Your task to perform on an android device: open app "Google Pay: Save, Pay, Manage" Image 0: 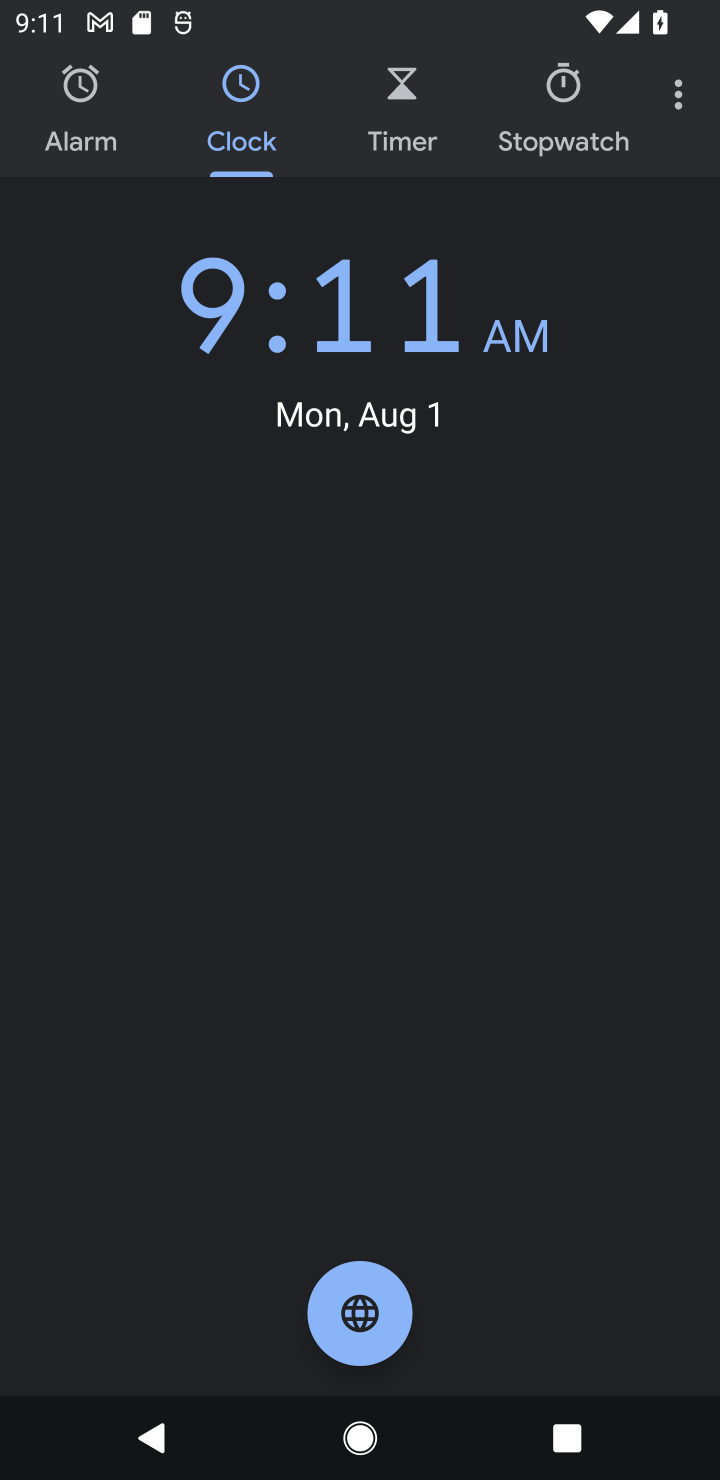
Step 0: press home button
Your task to perform on an android device: open app "Google Pay: Save, Pay, Manage" Image 1: 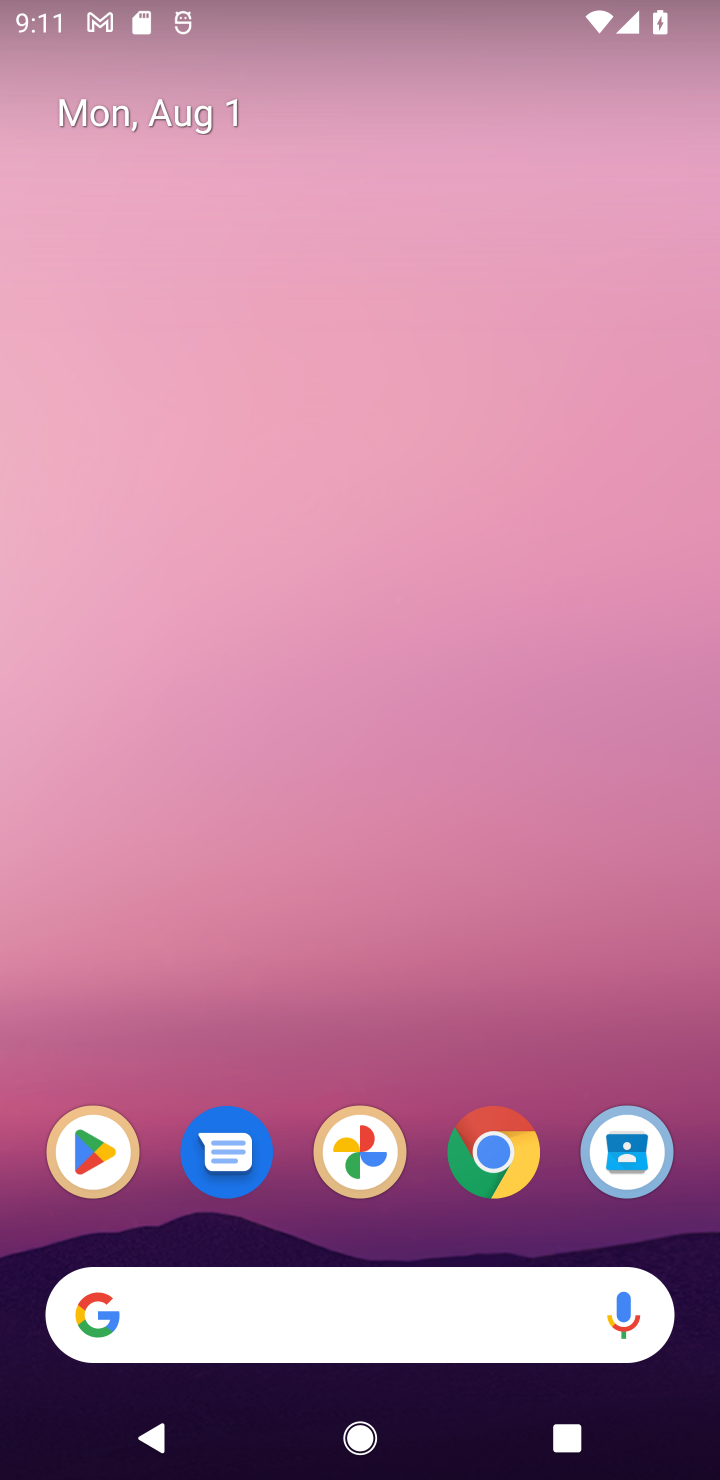
Step 1: drag from (289, 1200) to (652, 1394)
Your task to perform on an android device: open app "Google Pay: Save, Pay, Manage" Image 2: 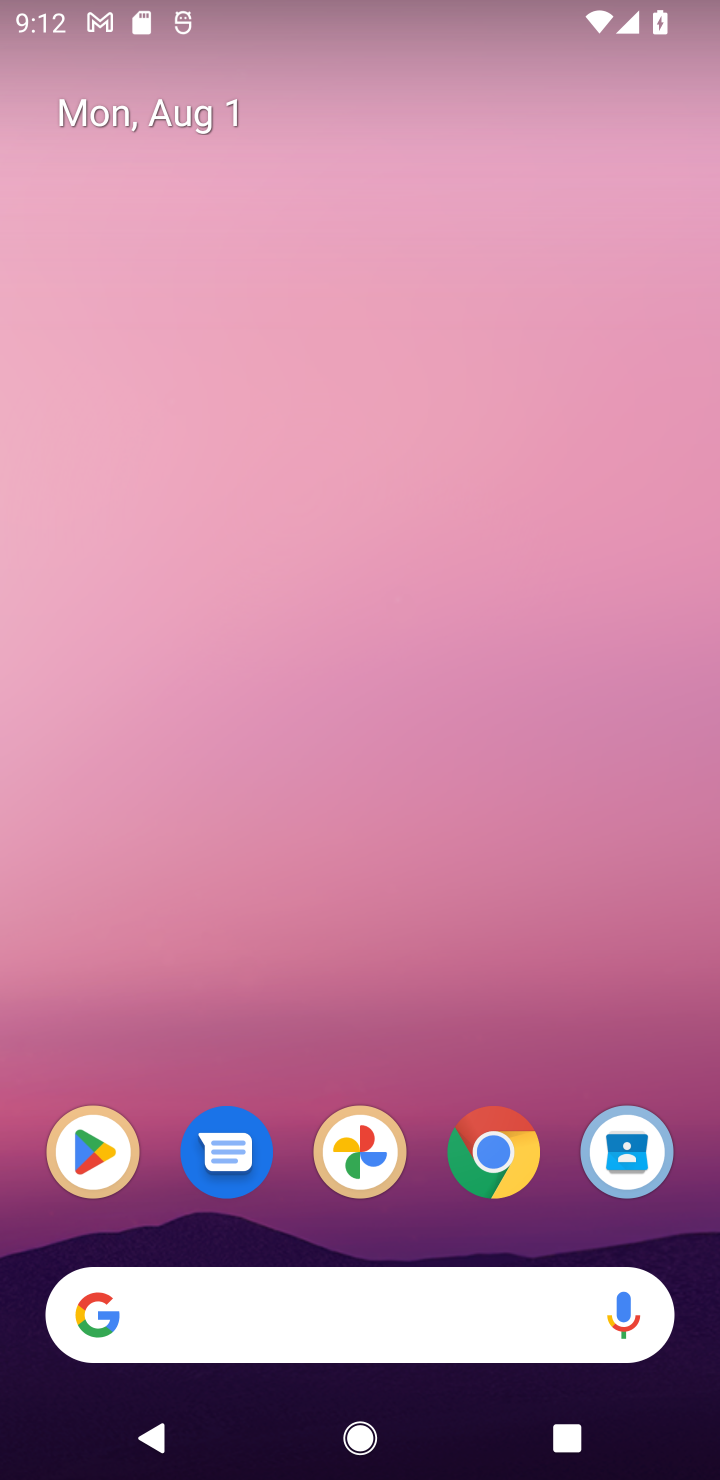
Step 2: drag from (357, 1272) to (284, 33)
Your task to perform on an android device: open app "Google Pay: Save, Pay, Manage" Image 3: 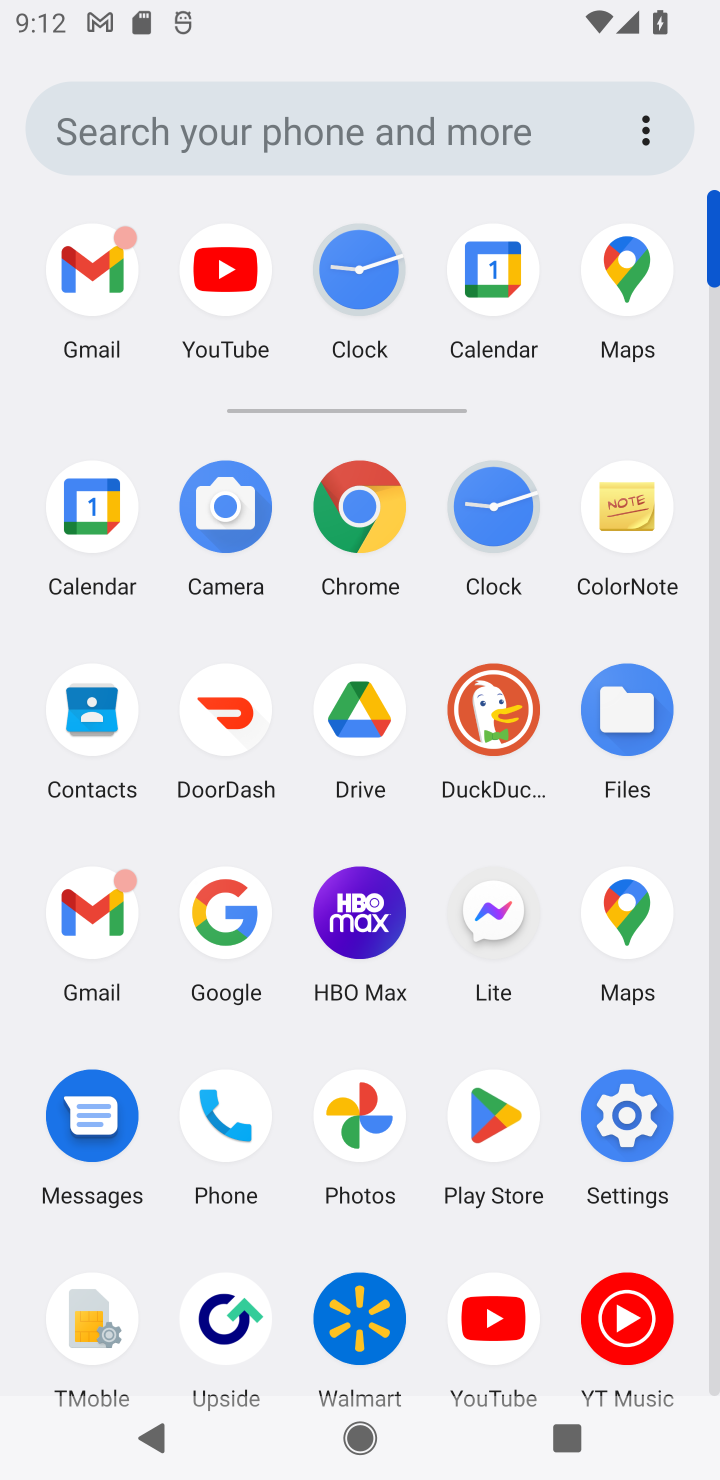
Step 3: click (481, 1120)
Your task to perform on an android device: open app "Google Pay: Save, Pay, Manage" Image 4: 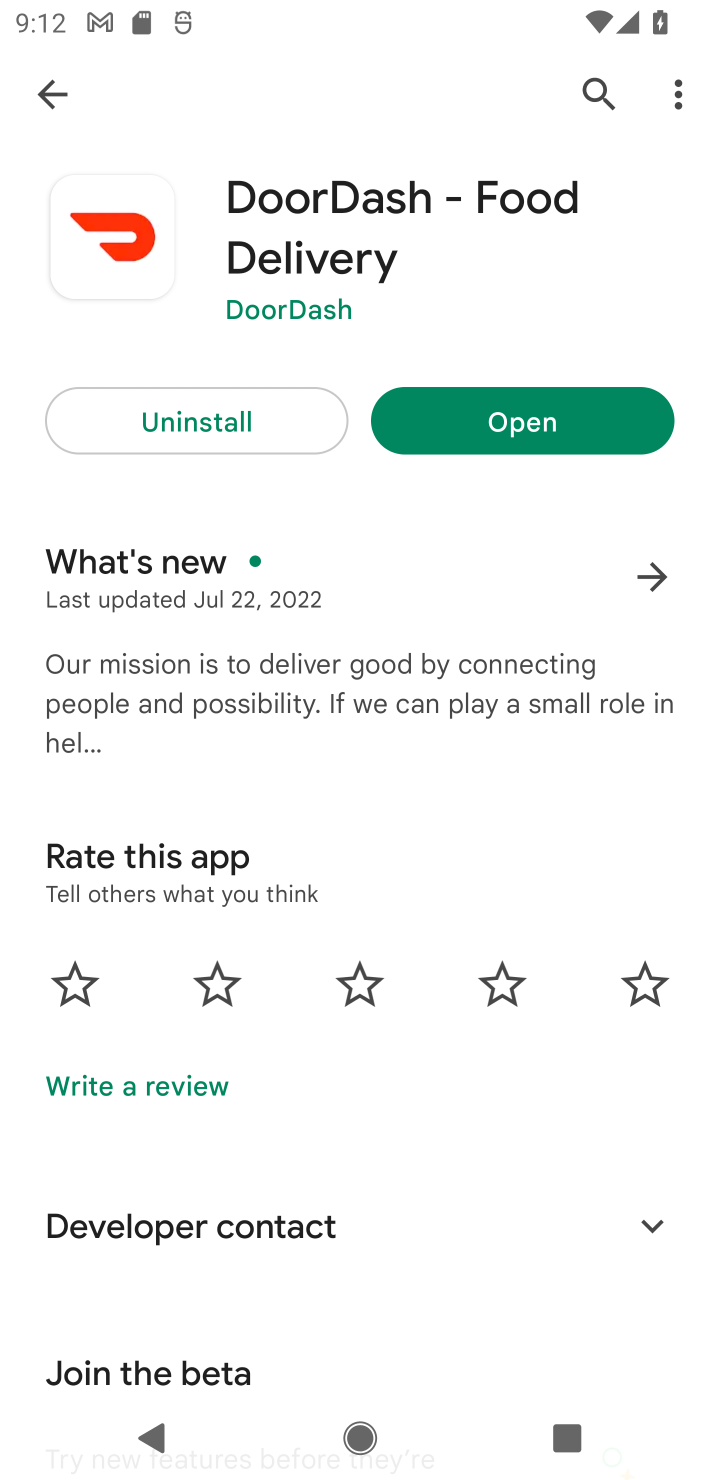
Step 4: click (49, 97)
Your task to perform on an android device: open app "Google Pay: Save, Pay, Manage" Image 5: 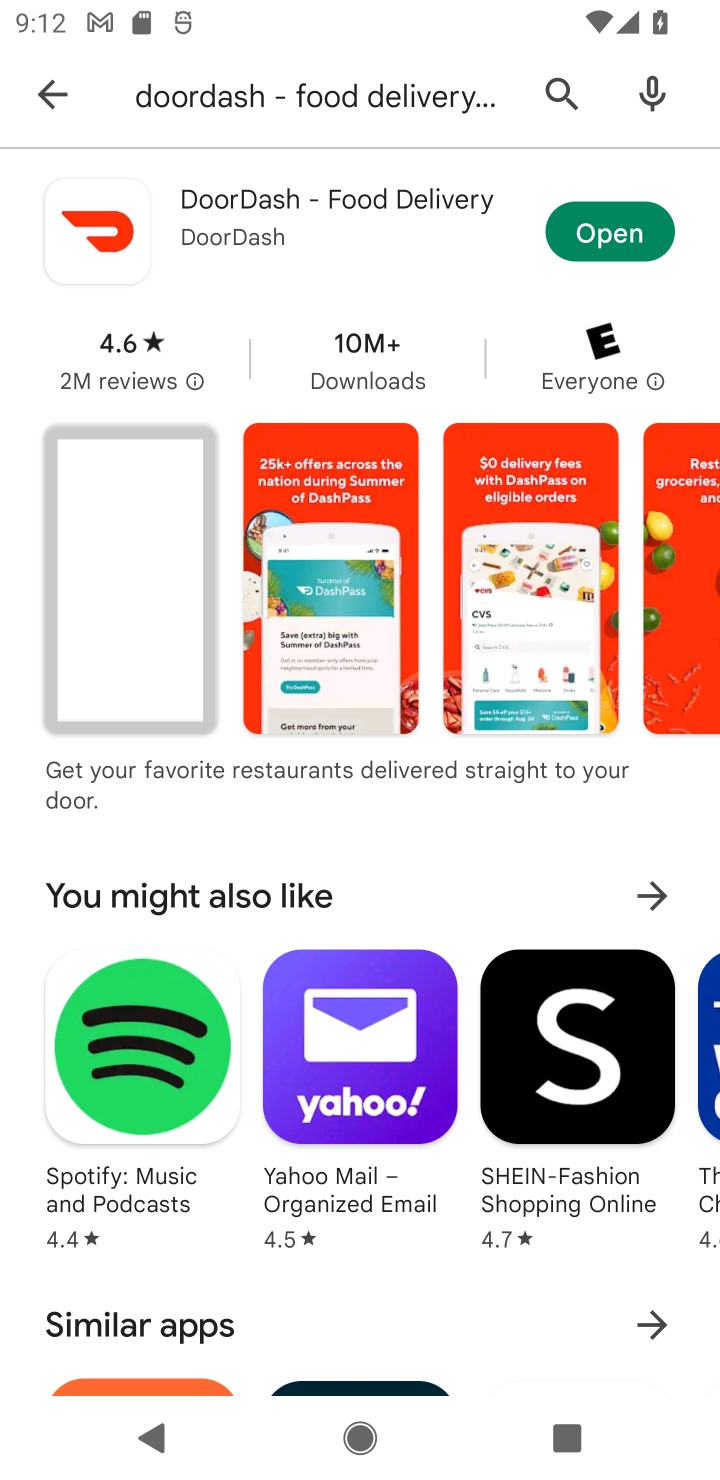
Step 5: click (555, 95)
Your task to perform on an android device: open app "Google Pay: Save, Pay, Manage" Image 6: 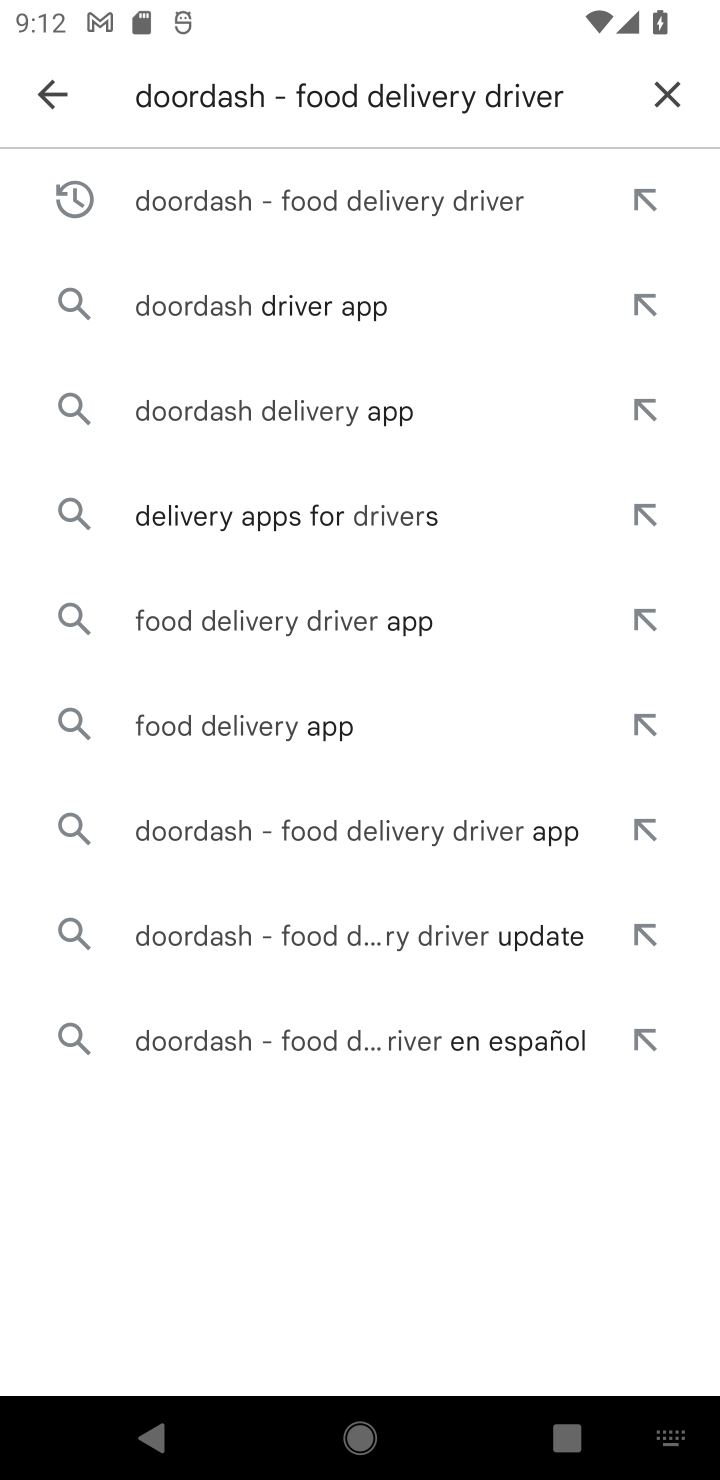
Step 6: click (661, 93)
Your task to perform on an android device: open app "Google Pay: Save, Pay, Manage" Image 7: 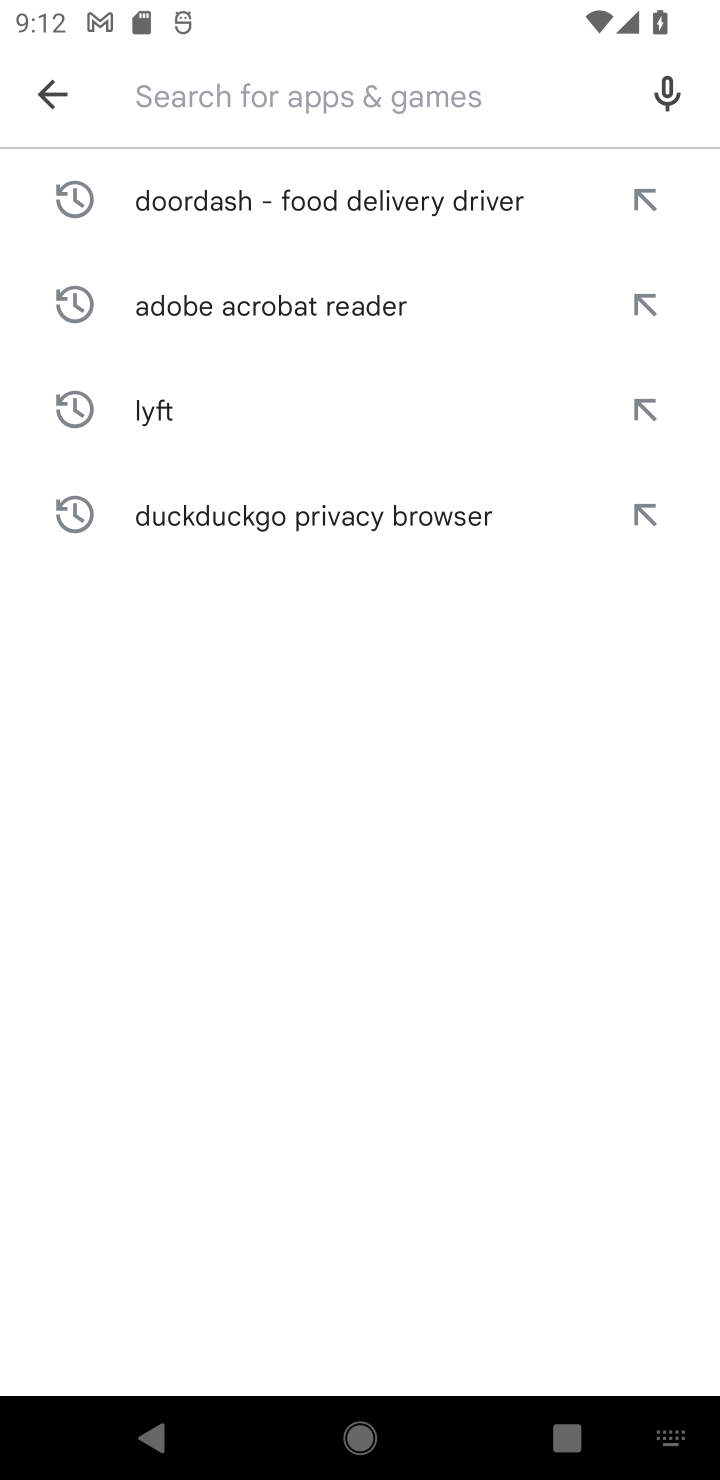
Step 7: type "Google Pay"
Your task to perform on an android device: open app "Google Pay: Save, Pay, Manage" Image 8: 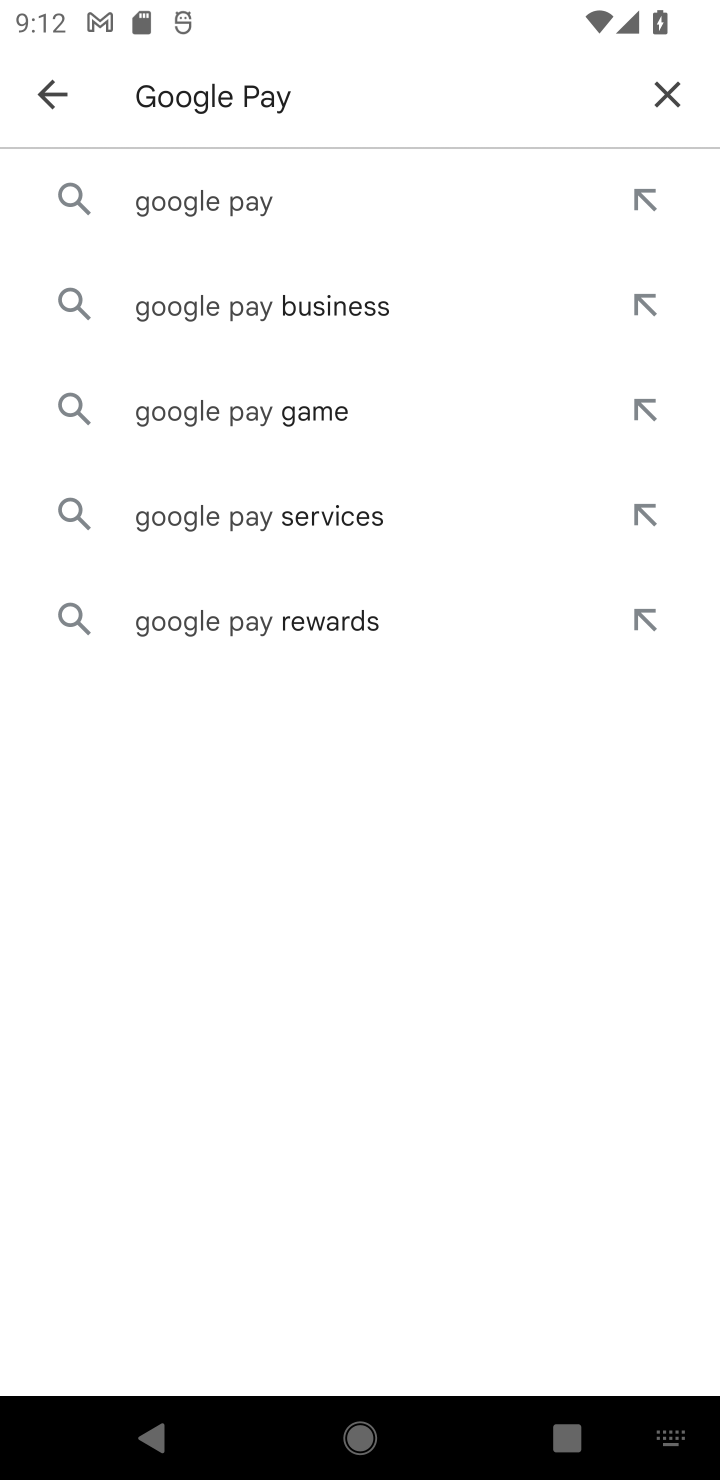
Step 8: click (186, 233)
Your task to perform on an android device: open app "Google Pay: Save, Pay, Manage" Image 9: 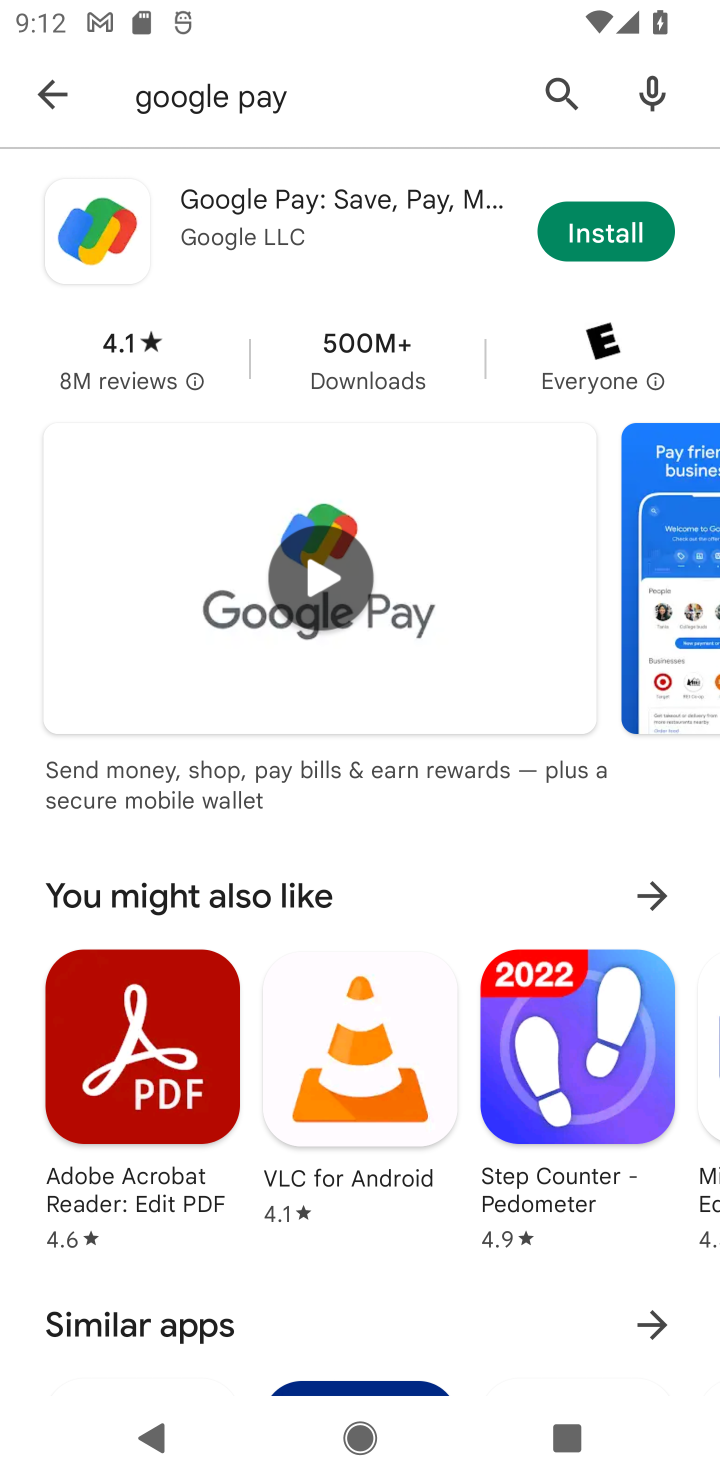
Step 9: task complete